Your task to perform on an android device: Open sound settings Image 0: 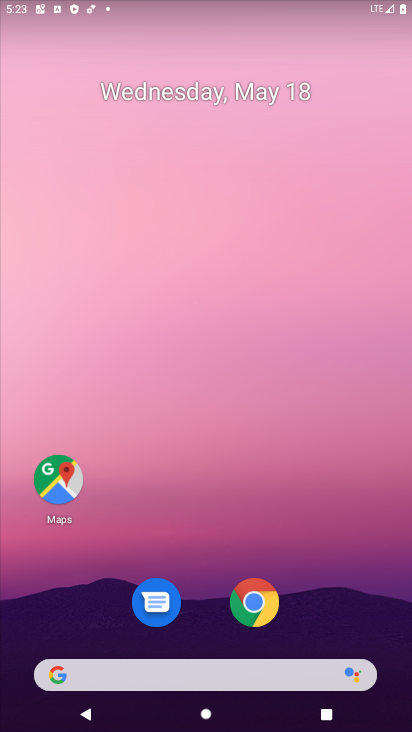
Step 0: task complete